Your task to perform on an android device: change timer sound Image 0: 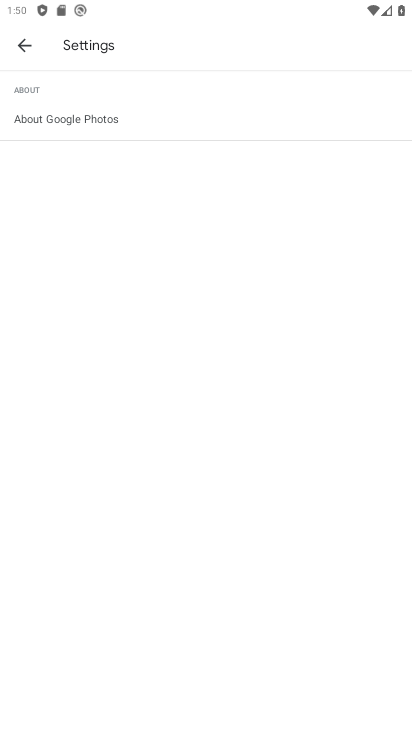
Step 0: press home button
Your task to perform on an android device: change timer sound Image 1: 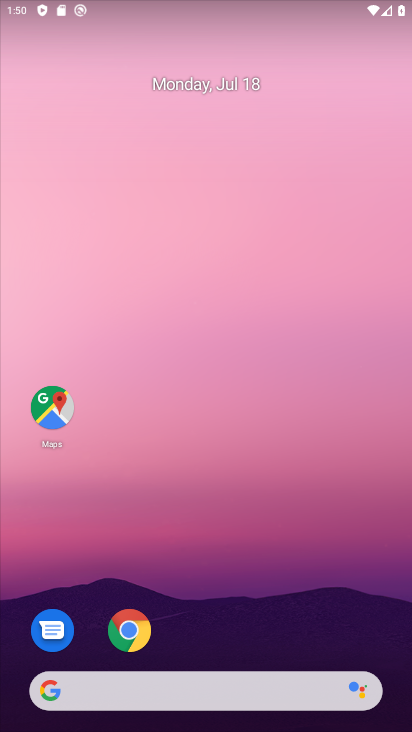
Step 1: drag from (385, 619) to (299, 245)
Your task to perform on an android device: change timer sound Image 2: 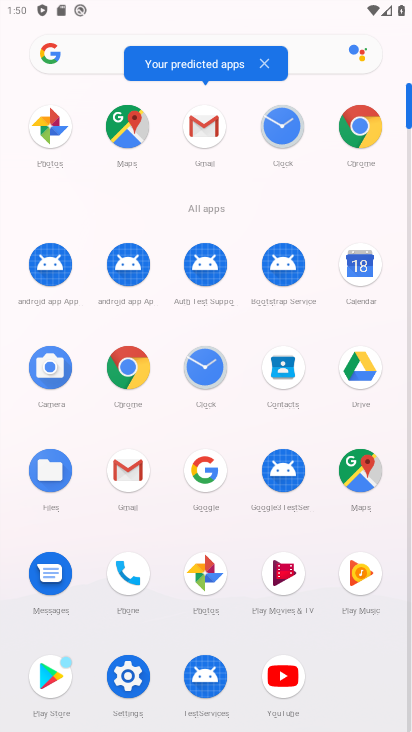
Step 2: click (205, 365)
Your task to perform on an android device: change timer sound Image 3: 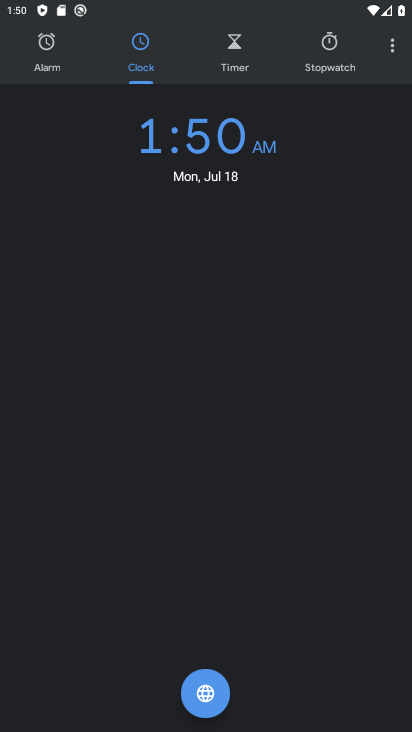
Step 3: click (392, 51)
Your task to perform on an android device: change timer sound Image 4: 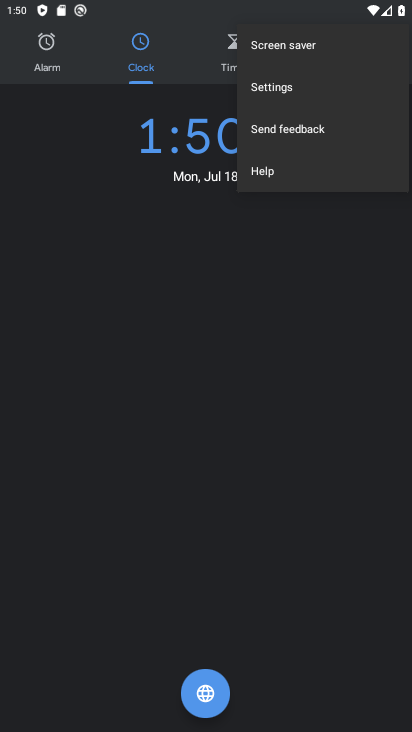
Step 4: click (265, 86)
Your task to perform on an android device: change timer sound Image 5: 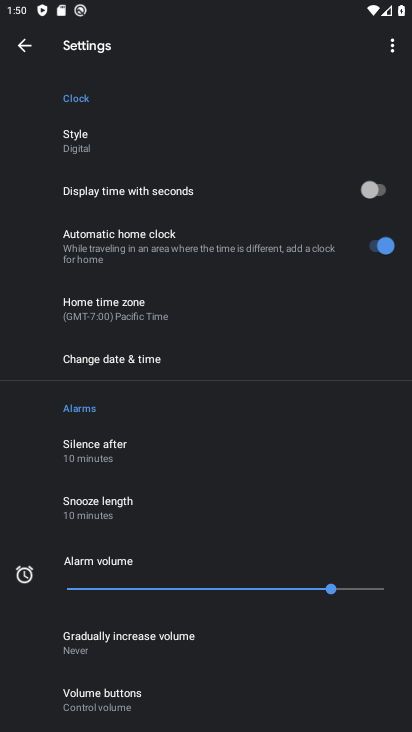
Step 5: drag from (138, 562) to (152, 263)
Your task to perform on an android device: change timer sound Image 6: 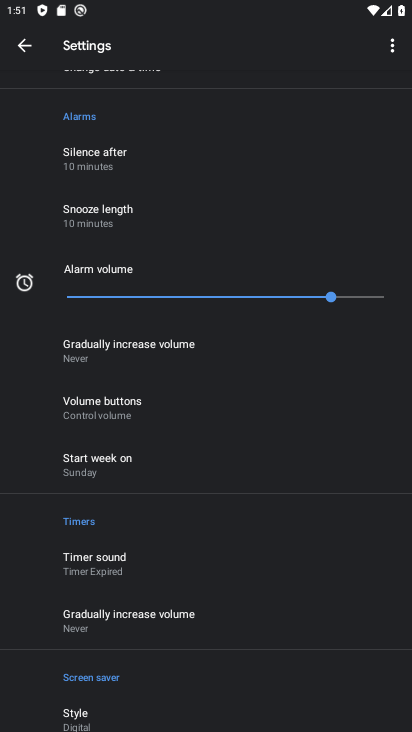
Step 6: click (101, 565)
Your task to perform on an android device: change timer sound Image 7: 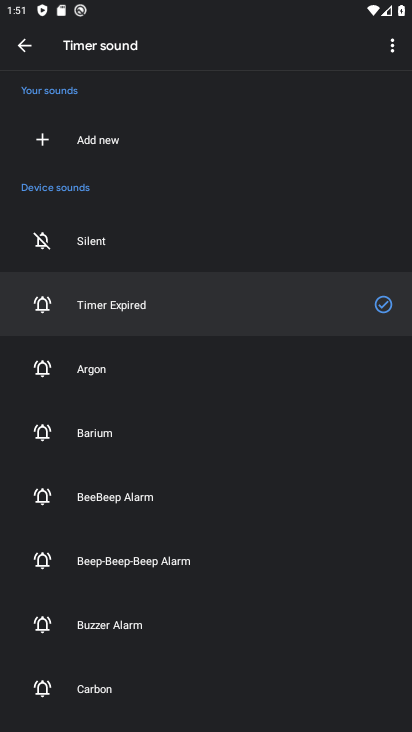
Step 7: click (101, 507)
Your task to perform on an android device: change timer sound Image 8: 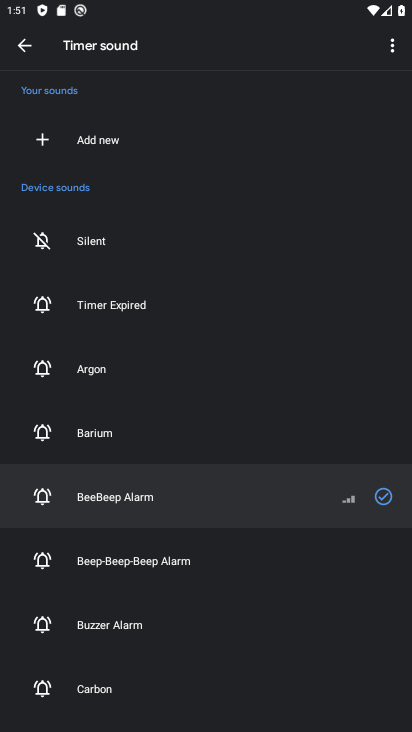
Step 8: task complete